Your task to perform on an android device: Do I have any events today? Image 0: 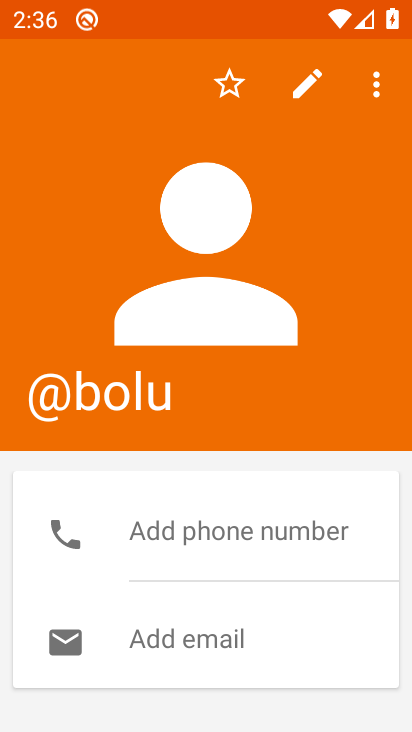
Step 0: press home button
Your task to perform on an android device: Do I have any events today? Image 1: 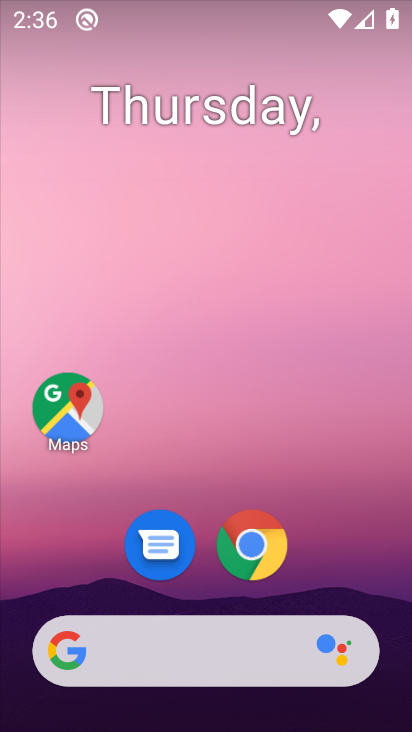
Step 1: drag from (175, 612) to (271, 192)
Your task to perform on an android device: Do I have any events today? Image 2: 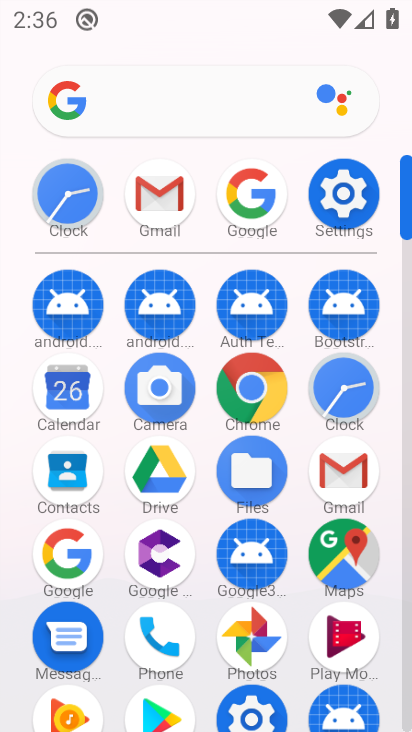
Step 2: click (68, 391)
Your task to perform on an android device: Do I have any events today? Image 3: 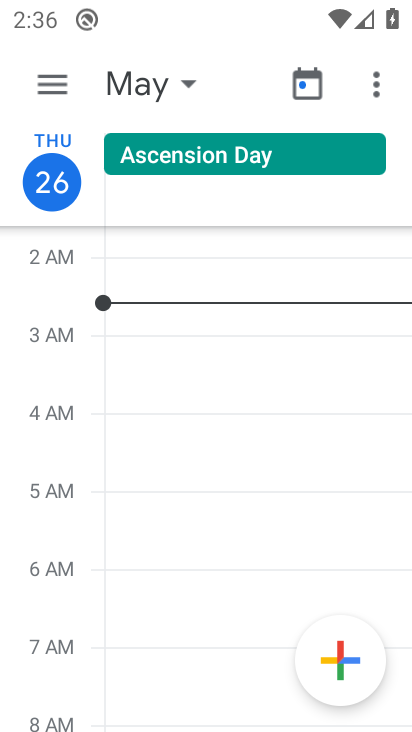
Step 3: click (57, 89)
Your task to perform on an android device: Do I have any events today? Image 4: 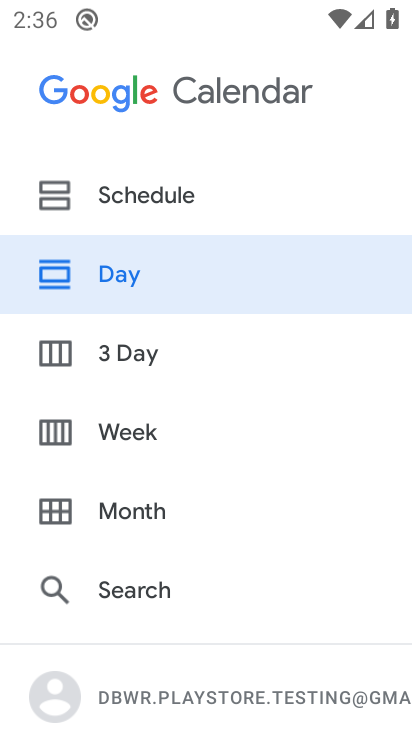
Step 4: click (139, 195)
Your task to perform on an android device: Do I have any events today? Image 5: 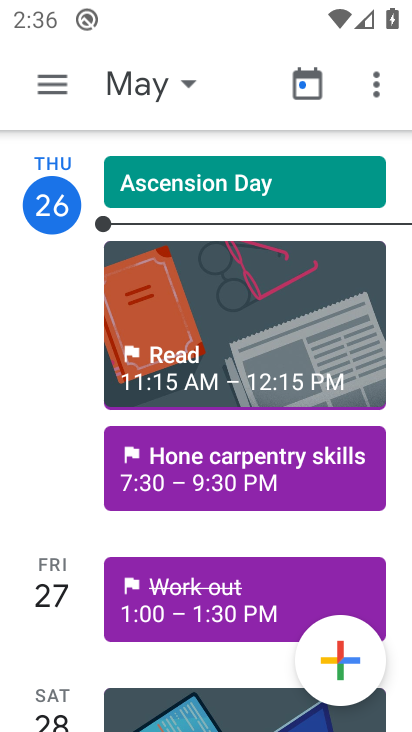
Step 5: click (235, 192)
Your task to perform on an android device: Do I have any events today? Image 6: 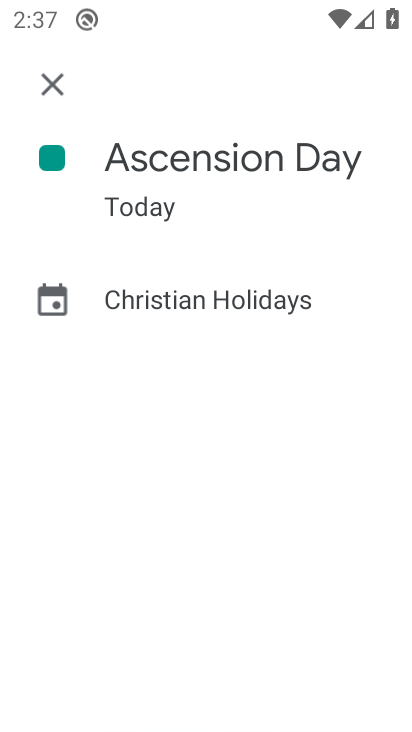
Step 6: click (41, 83)
Your task to perform on an android device: Do I have any events today? Image 7: 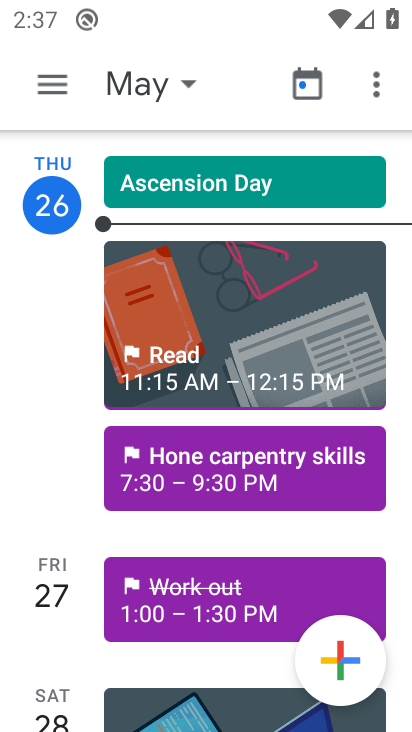
Step 7: task complete